Your task to perform on an android device: Is it going to rain today? Image 0: 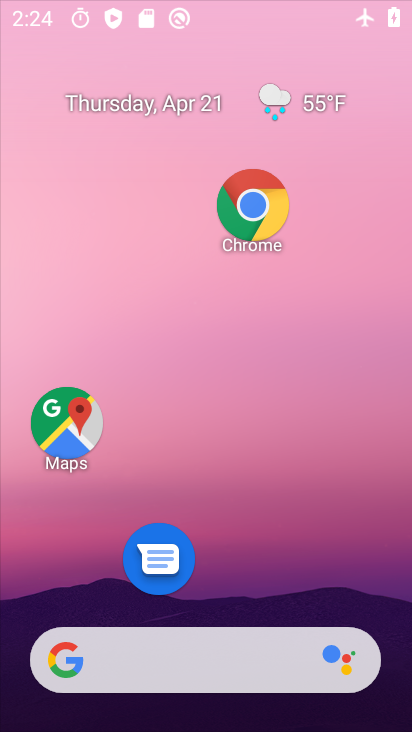
Step 0: press home button
Your task to perform on an android device: Is it going to rain today? Image 1: 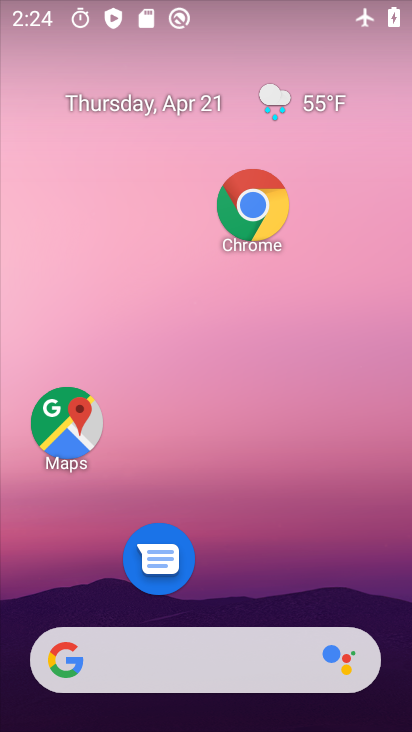
Step 1: drag from (226, 613) to (120, 5)
Your task to perform on an android device: Is it going to rain today? Image 2: 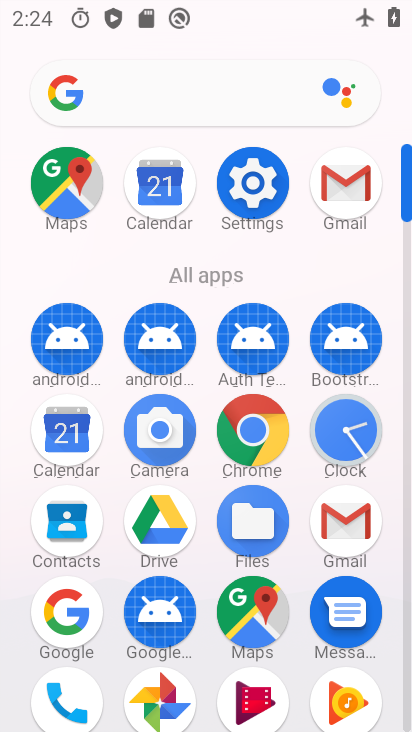
Step 2: click (68, 609)
Your task to perform on an android device: Is it going to rain today? Image 3: 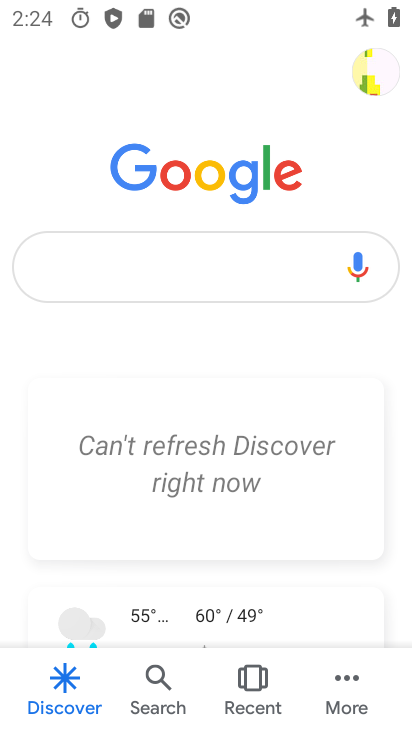
Step 3: click (273, 283)
Your task to perform on an android device: Is it going to rain today? Image 4: 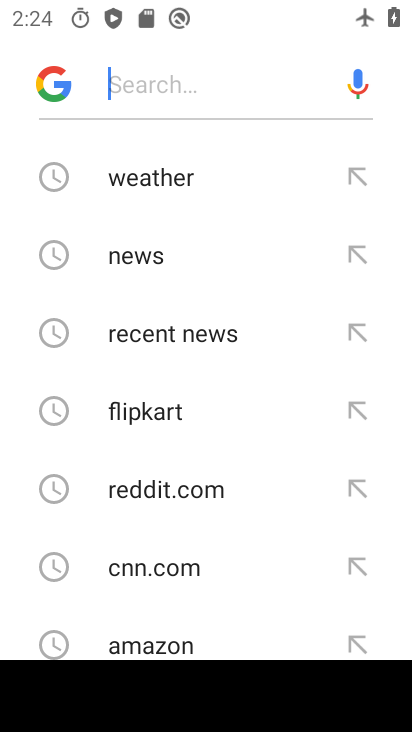
Step 4: click (172, 186)
Your task to perform on an android device: Is it going to rain today? Image 5: 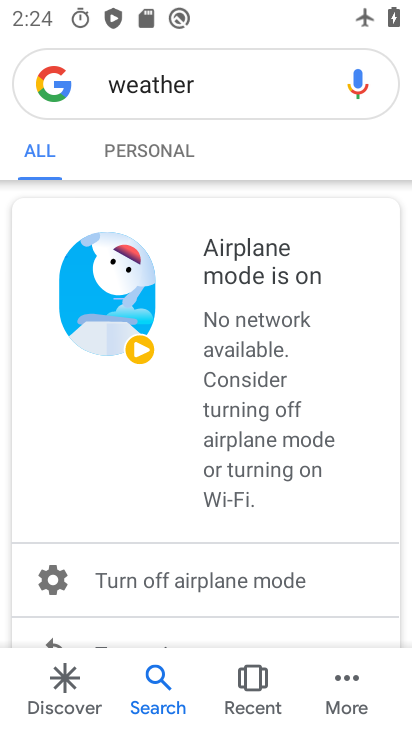
Step 5: task complete